Your task to perform on an android device: Open privacy settings Image 0: 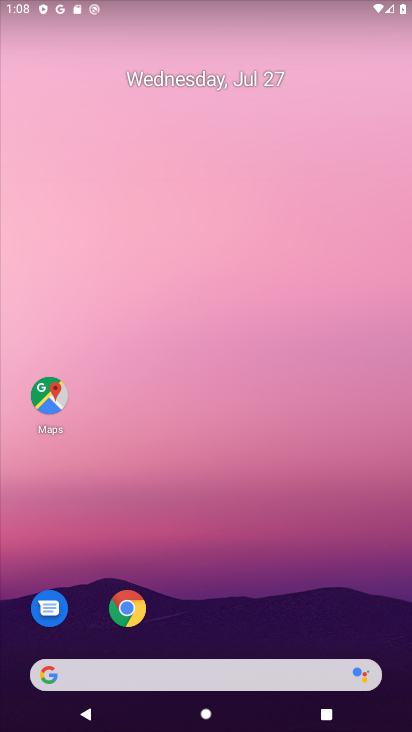
Step 0: drag from (212, 364) to (213, 10)
Your task to perform on an android device: Open privacy settings Image 1: 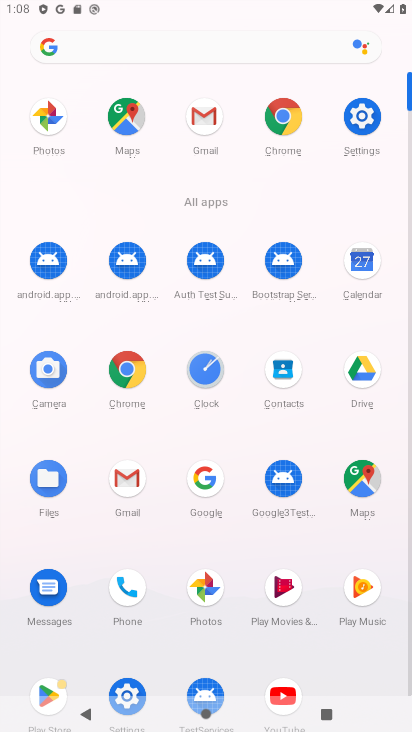
Step 1: click (120, 680)
Your task to perform on an android device: Open privacy settings Image 2: 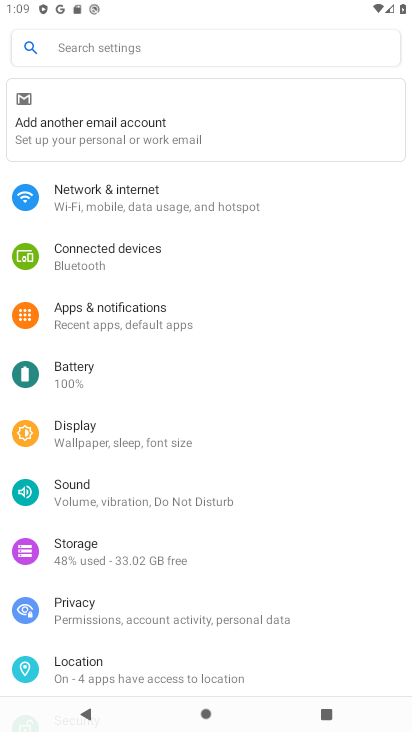
Step 2: click (93, 606)
Your task to perform on an android device: Open privacy settings Image 3: 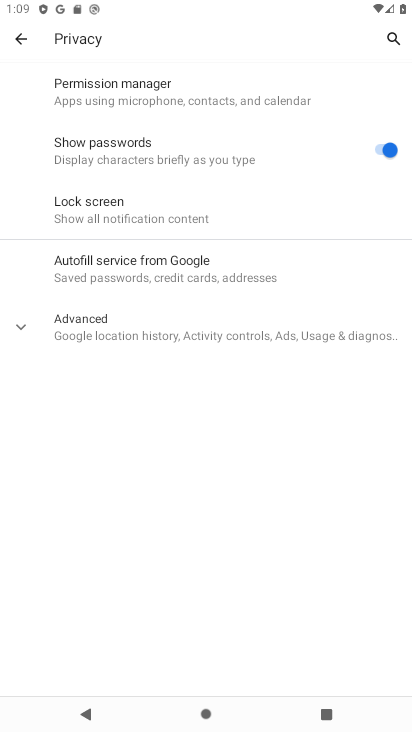
Step 3: task complete